Your task to perform on an android device: clear all cookies in the chrome app Image 0: 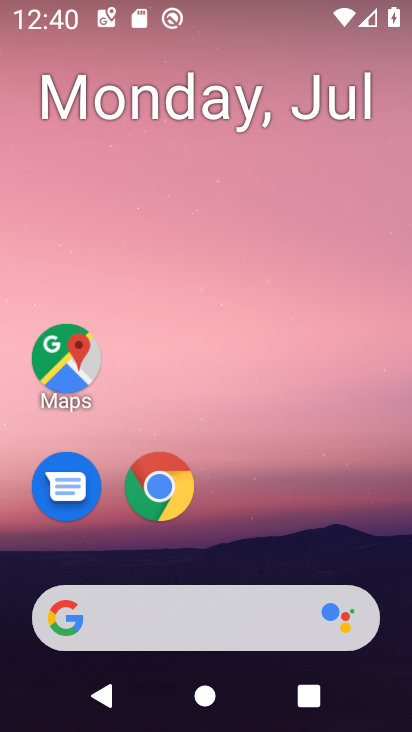
Step 0: press home button
Your task to perform on an android device: clear all cookies in the chrome app Image 1: 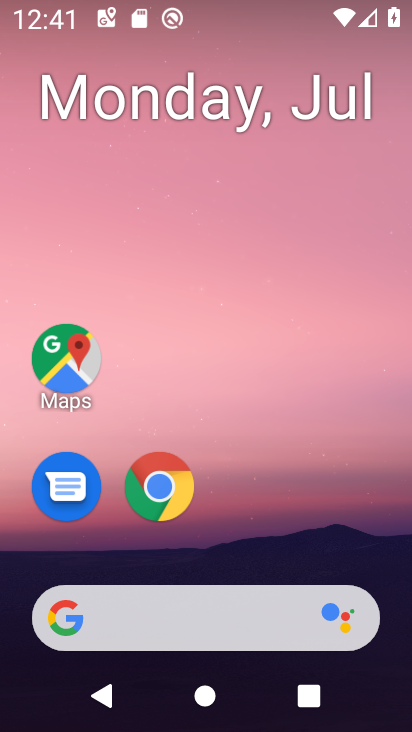
Step 1: drag from (363, 515) to (376, 109)
Your task to perform on an android device: clear all cookies in the chrome app Image 2: 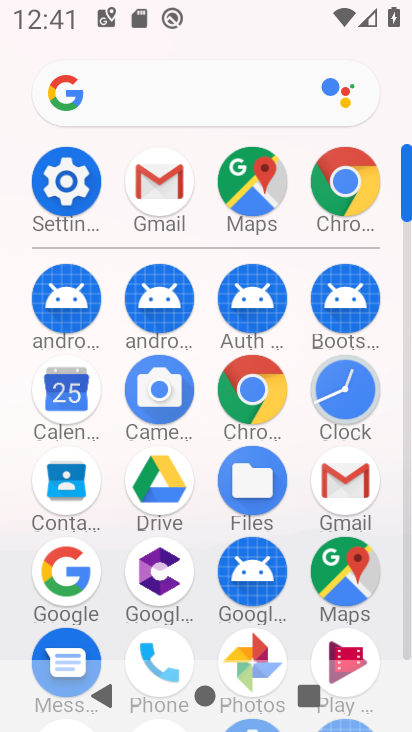
Step 2: click (256, 410)
Your task to perform on an android device: clear all cookies in the chrome app Image 3: 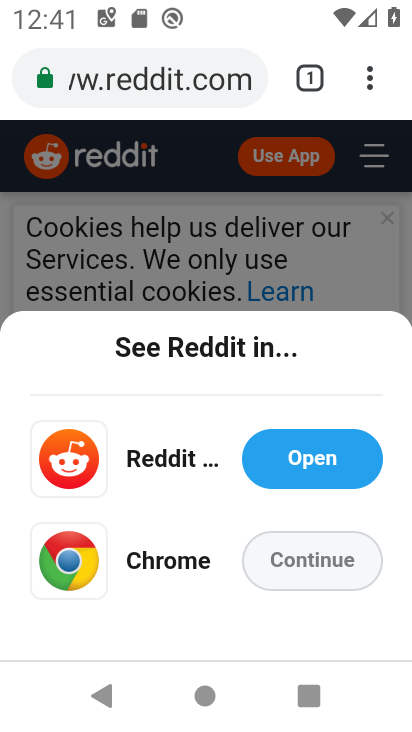
Step 3: click (370, 87)
Your task to perform on an android device: clear all cookies in the chrome app Image 4: 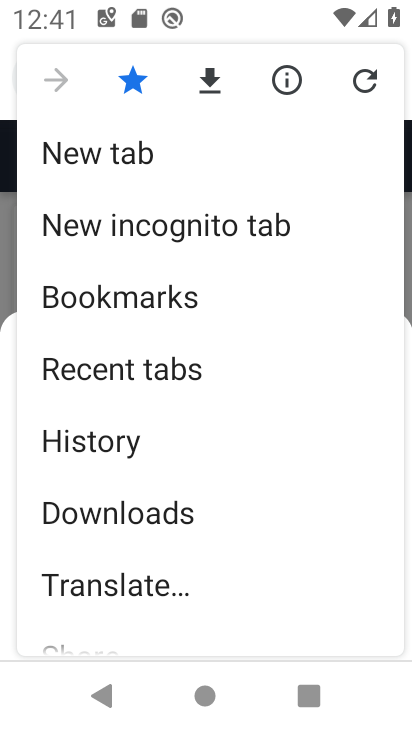
Step 4: drag from (302, 426) to (303, 328)
Your task to perform on an android device: clear all cookies in the chrome app Image 5: 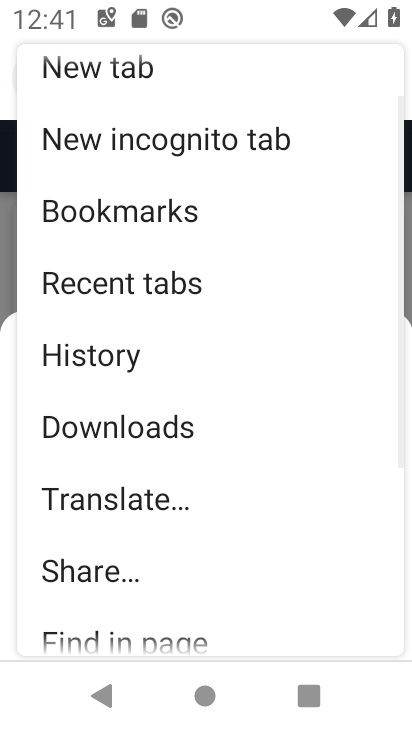
Step 5: drag from (290, 472) to (293, 377)
Your task to perform on an android device: clear all cookies in the chrome app Image 6: 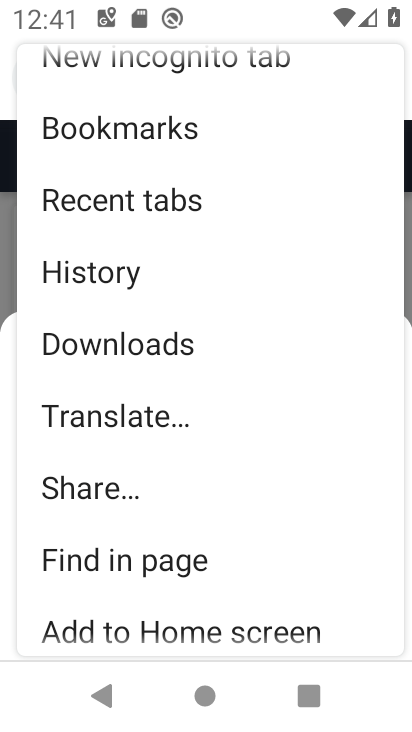
Step 6: drag from (270, 530) to (270, 387)
Your task to perform on an android device: clear all cookies in the chrome app Image 7: 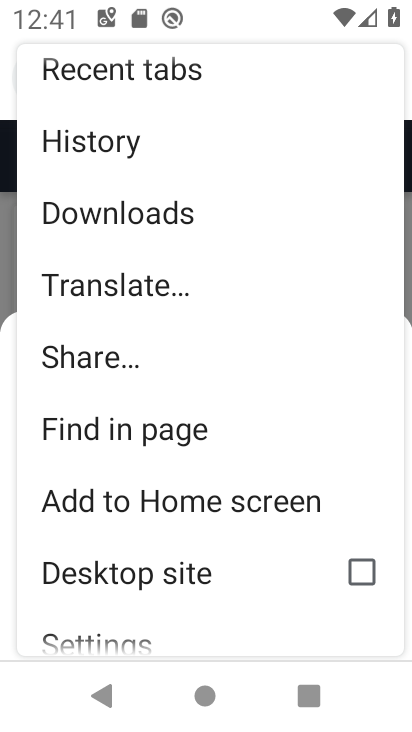
Step 7: drag from (249, 572) to (249, 414)
Your task to perform on an android device: clear all cookies in the chrome app Image 8: 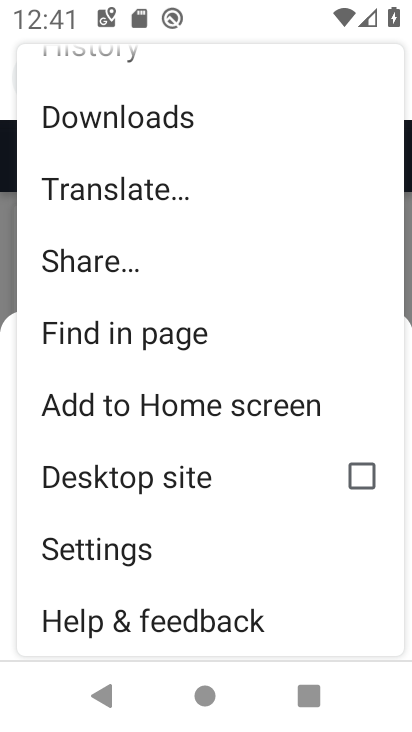
Step 8: click (219, 552)
Your task to perform on an android device: clear all cookies in the chrome app Image 9: 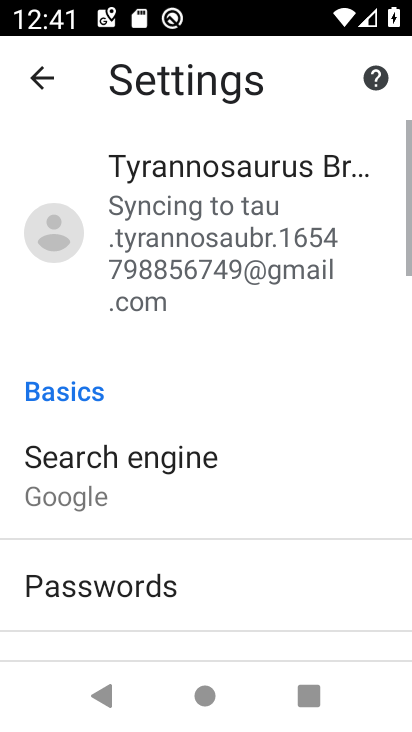
Step 9: drag from (219, 579) to (238, 482)
Your task to perform on an android device: clear all cookies in the chrome app Image 10: 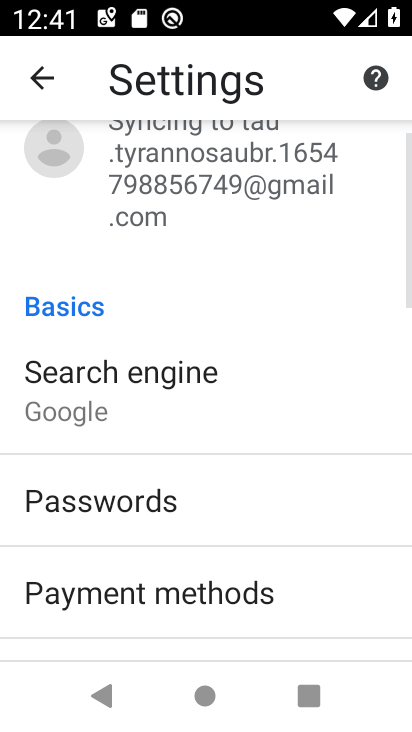
Step 10: drag from (297, 576) to (297, 473)
Your task to perform on an android device: clear all cookies in the chrome app Image 11: 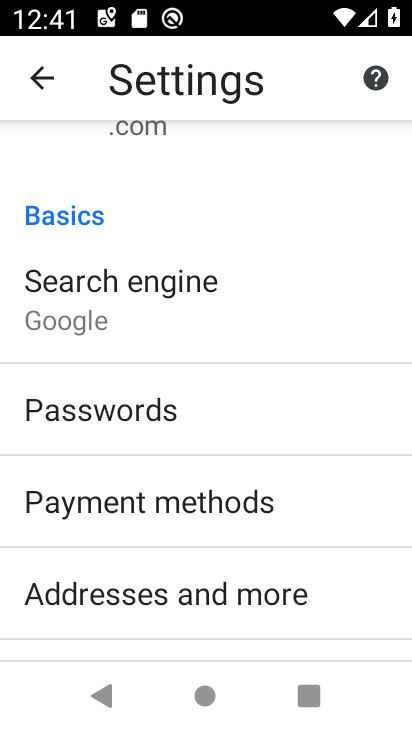
Step 11: drag from (331, 583) to (336, 492)
Your task to perform on an android device: clear all cookies in the chrome app Image 12: 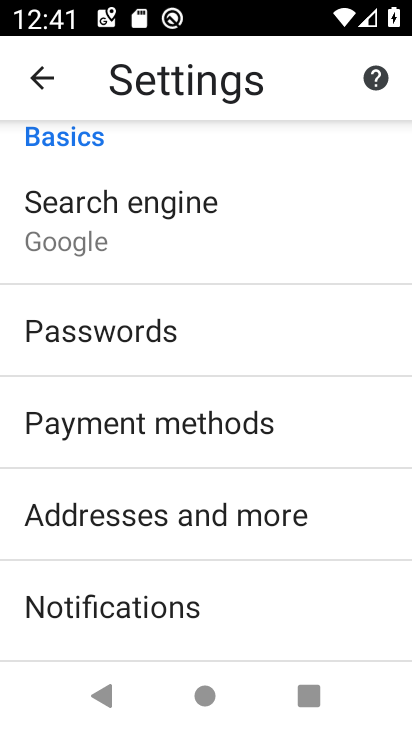
Step 12: drag from (340, 607) to (339, 517)
Your task to perform on an android device: clear all cookies in the chrome app Image 13: 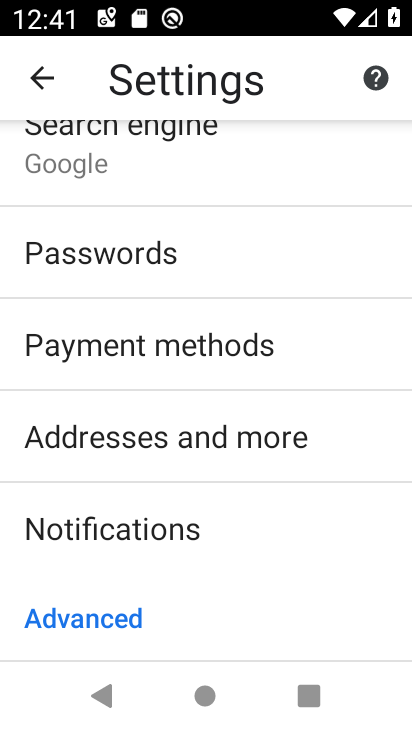
Step 13: drag from (316, 619) to (316, 498)
Your task to perform on an android device: clear all cookies in the chrome app Image 14: 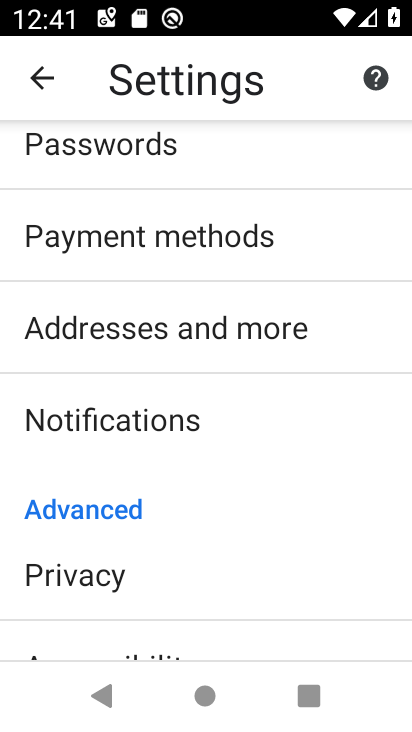
Step 14: drag from (303, 563) to (294, 427)
Your task to perform on an android device: clear all cookies in the chrome app Image 15: 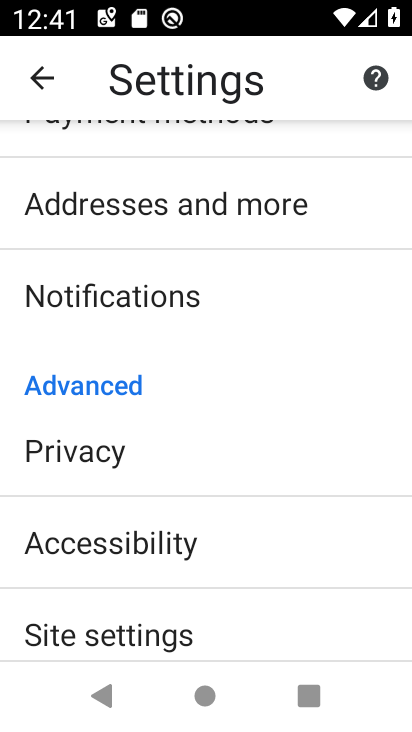
Step 15: drag from (288, 556) to (275, 414)
Your task to perform on an android device: clear all cookies in the chrome app Image 16: 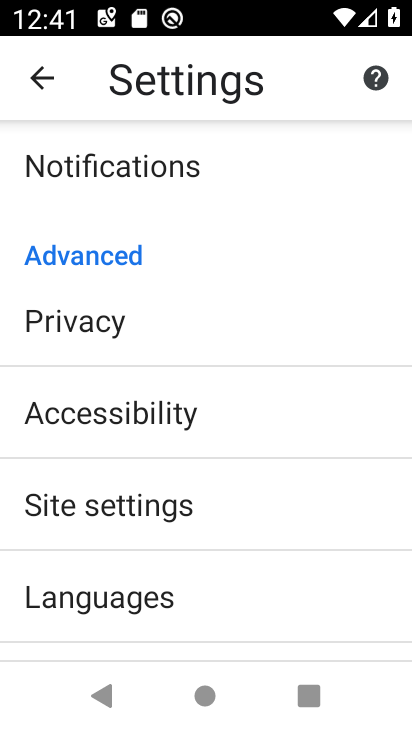
Step 16: drag from (267, 579) to (267, 407)
Your task to perform on an android device: clear all cookies in the chrome app Image 17: 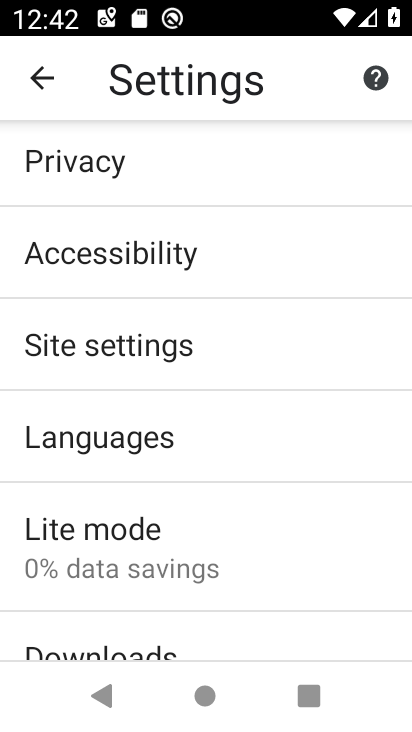
Step 17: click (232, 173)
Your task to perform on an android device: clear all cookies in the chrome app Image 18: 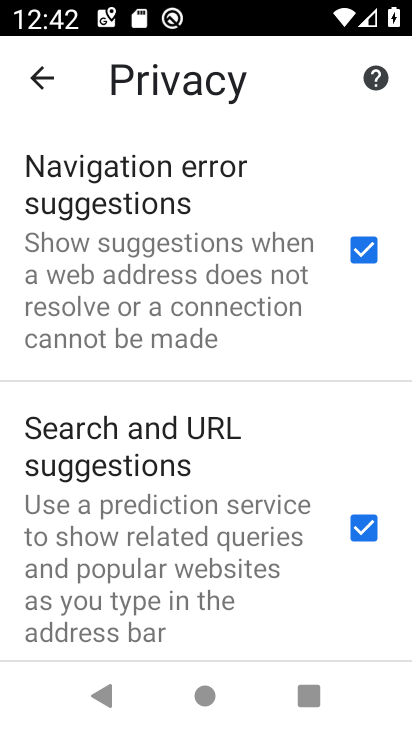
Step 18: drag from (213, 484) to (220, 357)
Your task to perform on an android device: clear all cookies in the chrome app Image 19: 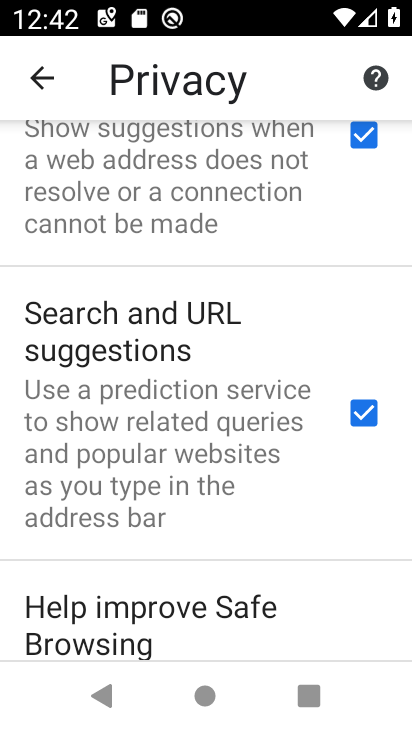
Step 19: drag from (223, 530) to (228, 394)
Your task to perform on an android device: clear all cookies in the chrome app Image 20: 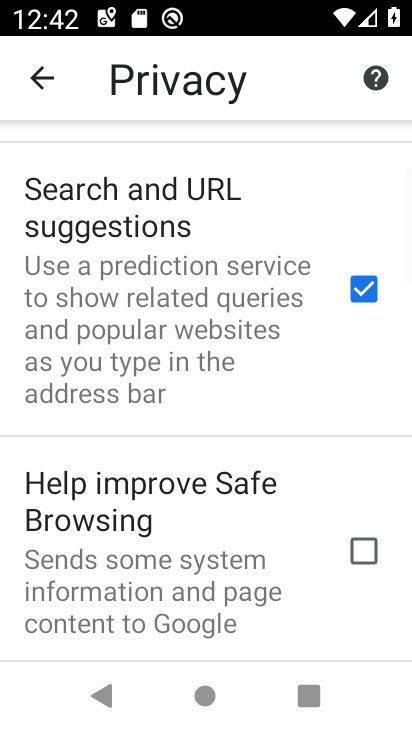
Step 20: drag from (213, 568) to (224, 421)
Your task to perform on an android device: clear all cookies in the chrome app Image 21: 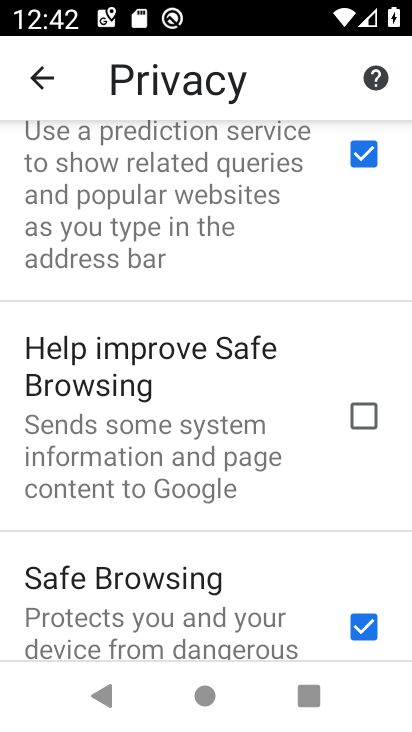
Step 21: drag from (281, 542) to (285, 426)
Your task to perform on an android device: clear all cookies in the chrome app Image 22: 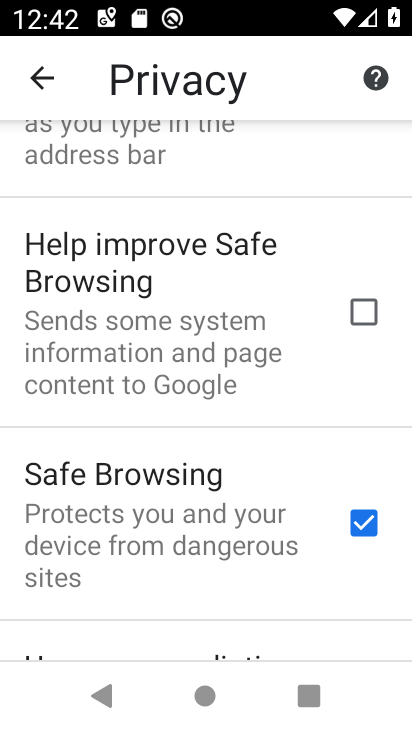
Step 22: drag from (255, 586) to (253, 434)
Your task to perform on an android device: clear all cookies in the chrome app Image 23: 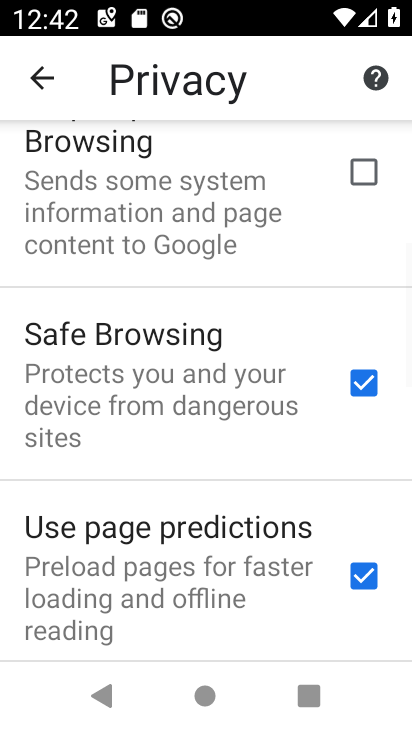
Step 23: drag from (225, 606) to (225, 395)
Your task to perform on an android device: clear all cookies in the chrome app Image 24: 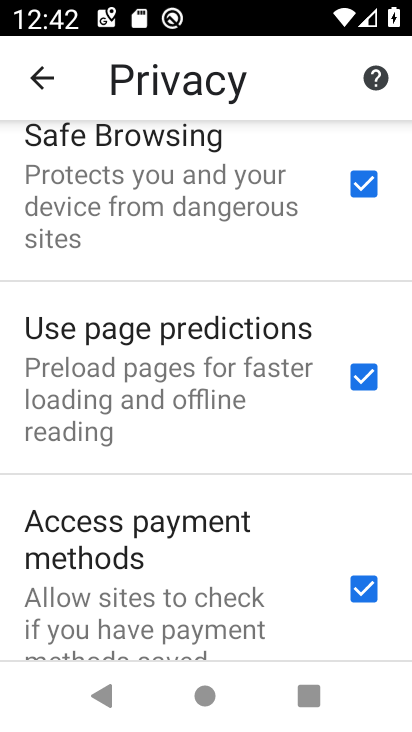
Step 24: drag from (220, 604) to (227, 363)
Your task to perform on an android device: clear all cookies in the chrome app Image 25: 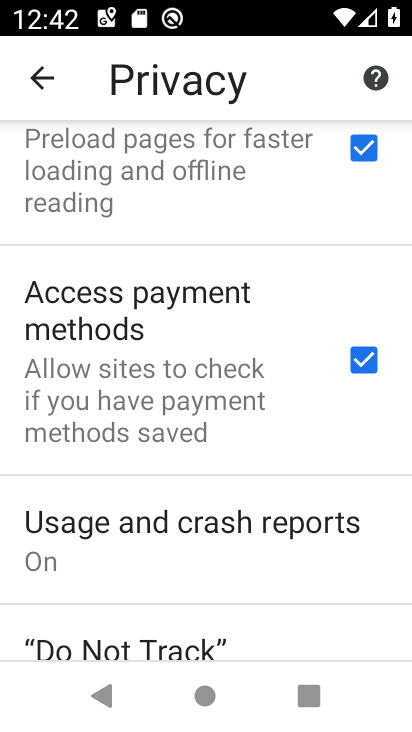
Step 25: drag from (248, 606) to (269, 229)
Your task to perform on an android device: clear all cookies in the chrome app Image 26: 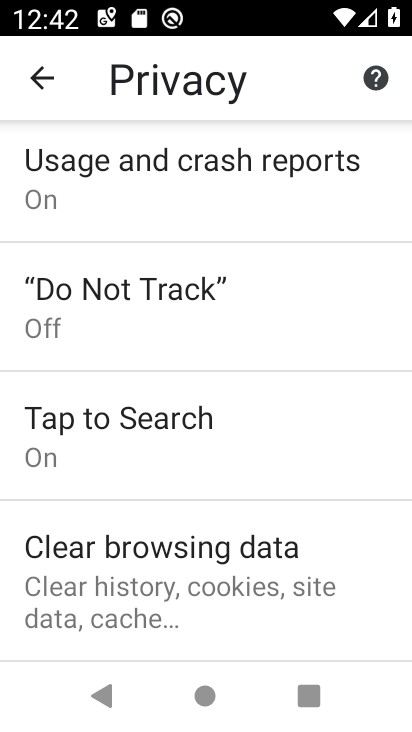
Step 26: click (292, 564)
Your task to perform on an android device: clear all cookies in the chrome app Image 27: 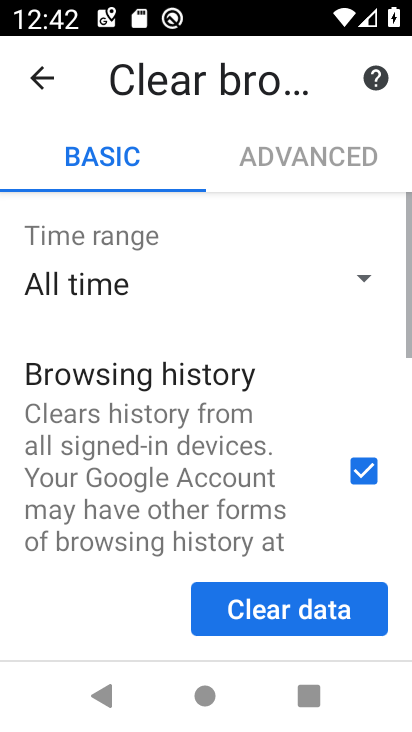
Step 27: click (328, 596)
Your task to perform on an android device: clear all cookies in the chrome app Image 28: 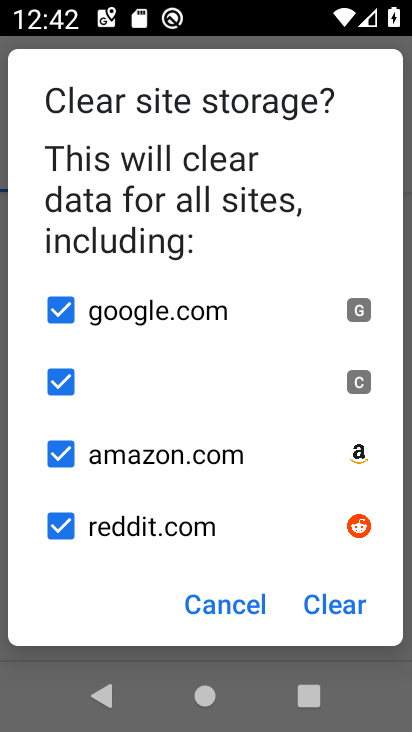
Step 28: click (348, 608)
Your task to perform on an android device: clear all cookies in the chrome app Image 29: 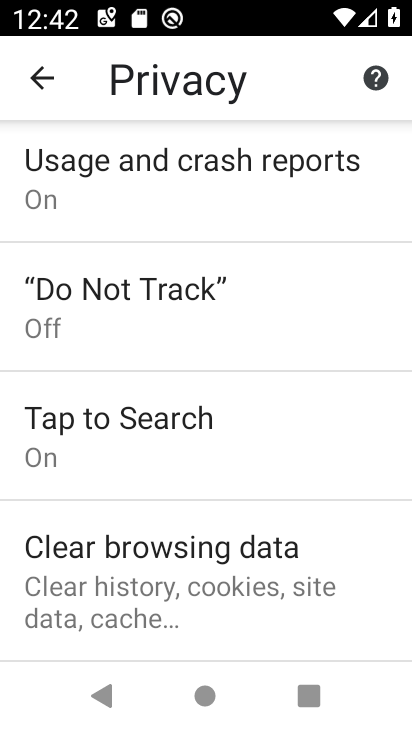
Step 29: task complete